Your task to perform on an android device: What's on my calendar tomorrow? Image 0: 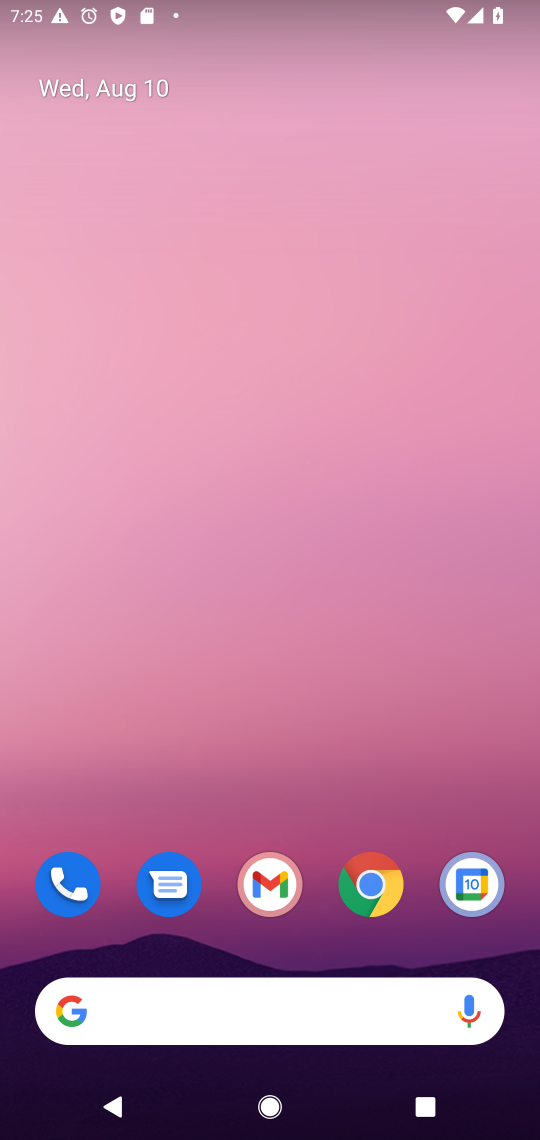
Step 0: click (474, 905)
Your task to perform on an android device: What's on my calendar tomorrow? Image 1: 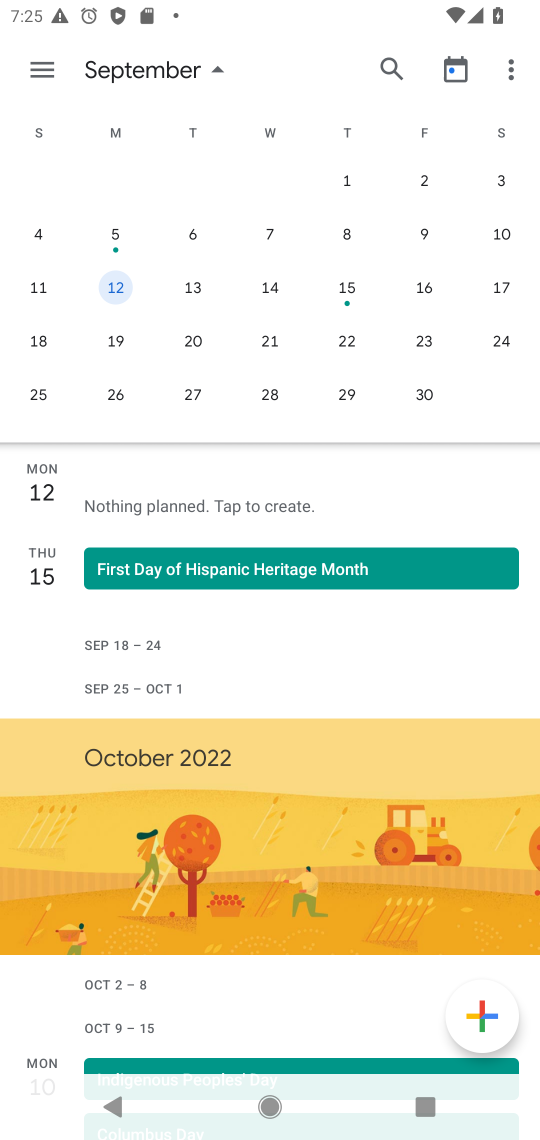
Step 1: drag from (14, 209) to (473, 265)
Your task to perform on an android device: What's on my calendar tomorrow? Image 2: 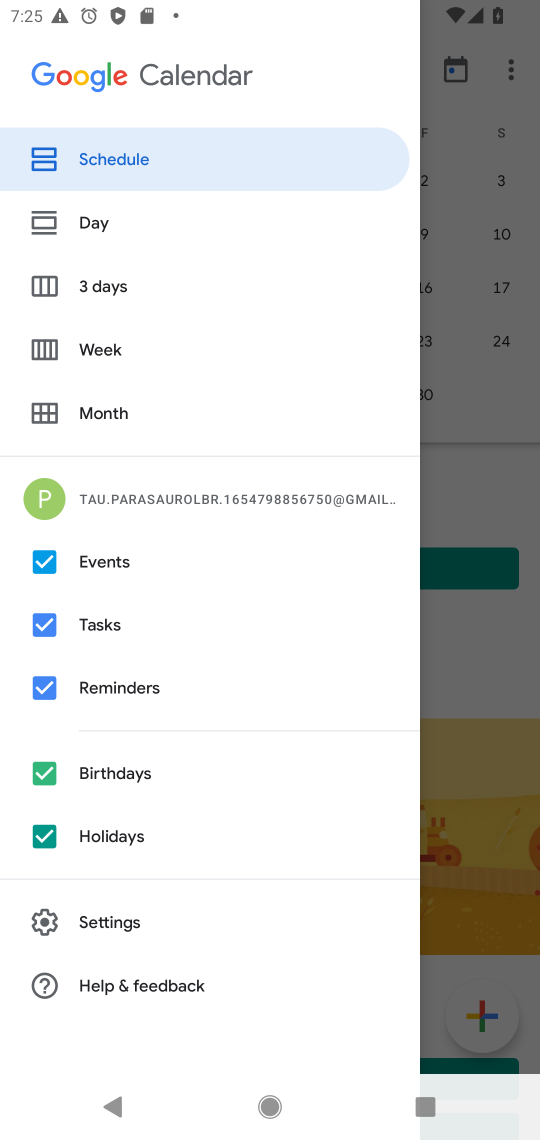
Step 2: click (480, 493)
Your task to perform on an android device: What's on my calendar tomorrow? Image 3: 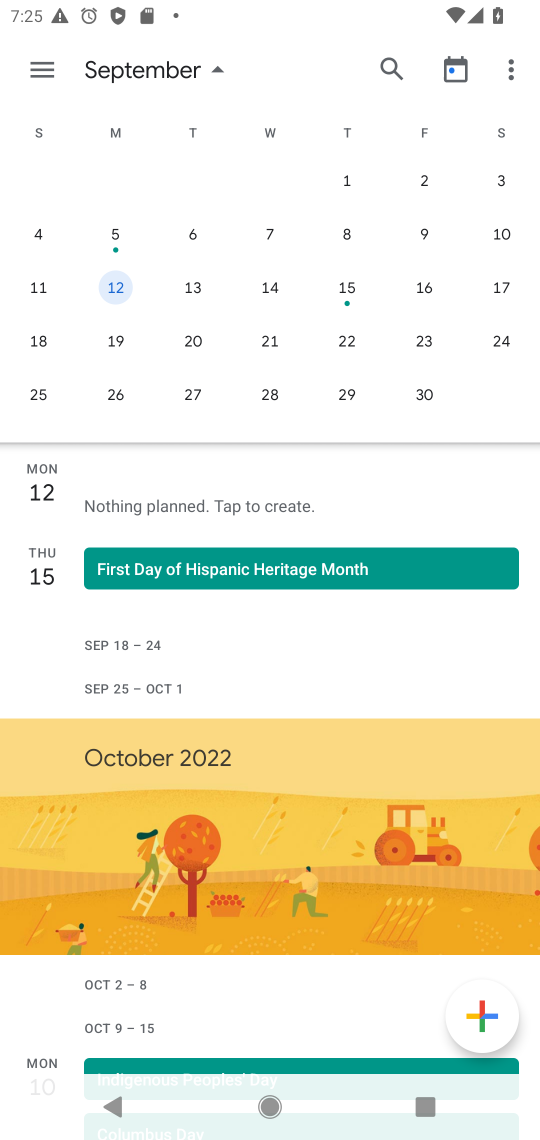
Step 3: drag from (23, 171) to (514, 193)
Your task to perform on an android device: What's on my calendar tomorrow? Image 4: 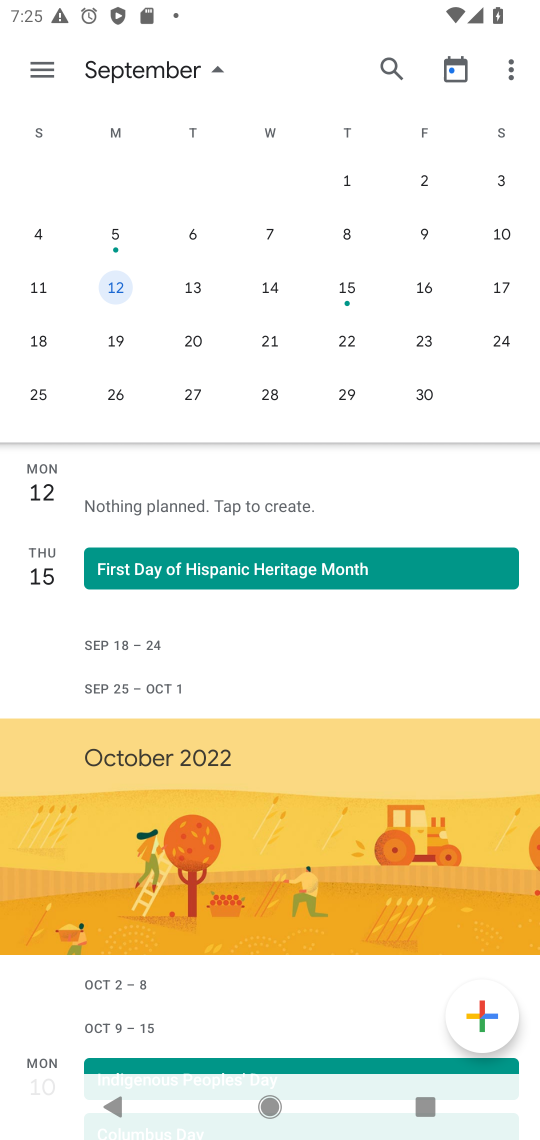
Step 4: click (215, 75)
Your task to perform on an android device: What's on my calendar tomorrow? Image 5: 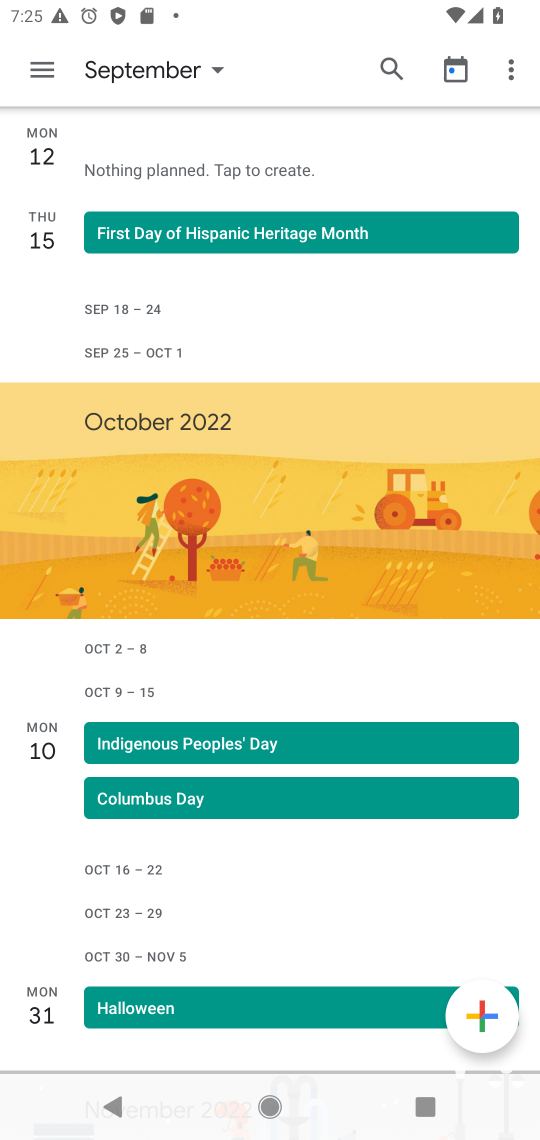
Step 5: click (215, 75)
Your task to perform on an android device: What's on my calendar tomorrow? Image 6: 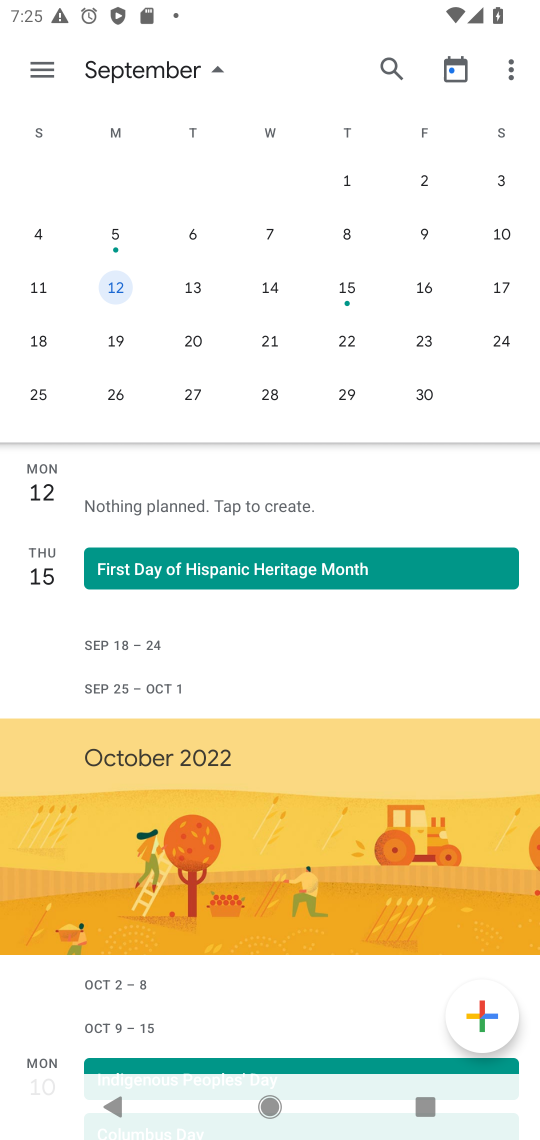
Step 6: click (141, 73)
Your task to perform on an android device: What's on my calendar tomorrow? Image 7: 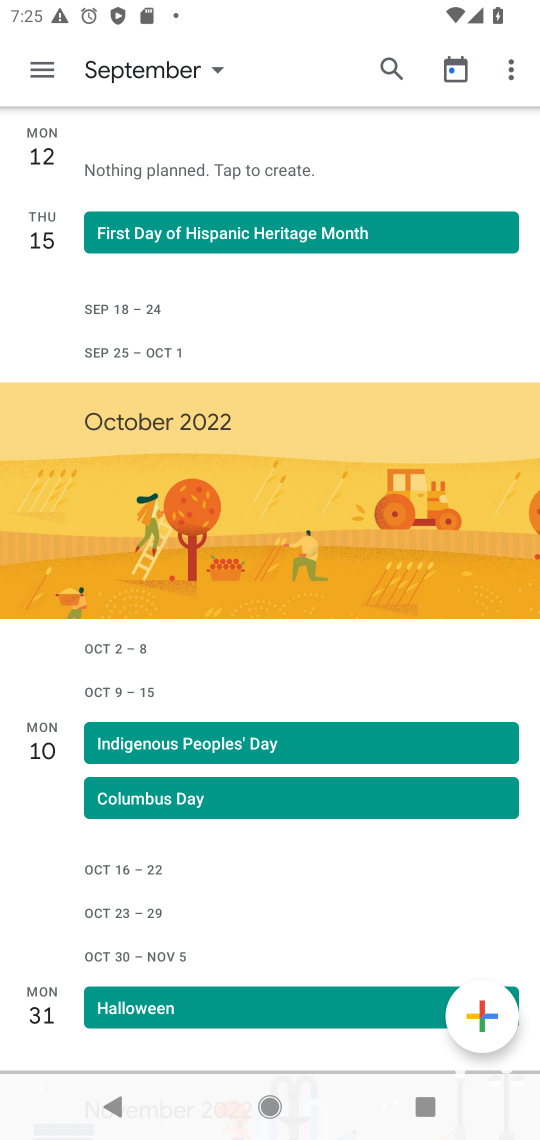
Step 7: click (141, 73)
Your task to perform on an android device: What's on my calendar tomorrow? Image 8: 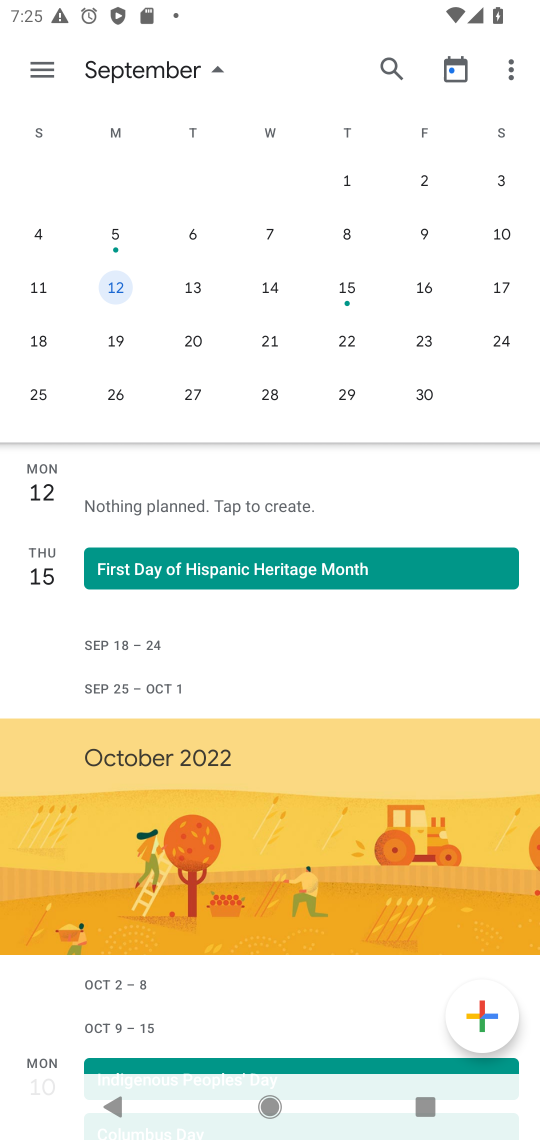
Step 8: task complete